Your task to perform on an android device: Go to location settings Image 0: 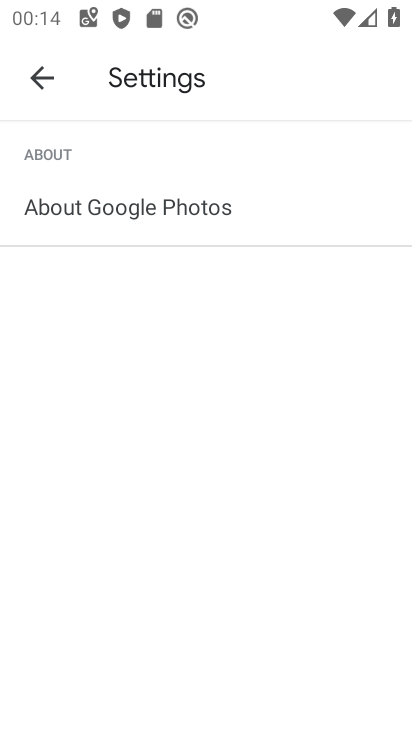
Step 0: press home button
Your task to perform on an android device: Go to location settings Image 1: 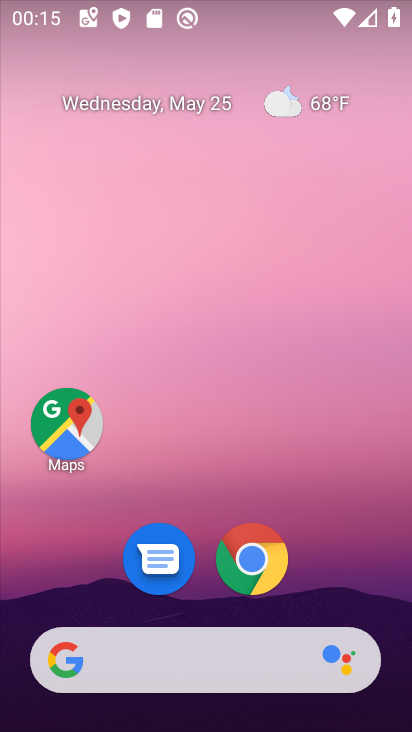
Step 1: drag from (388, 619) to (343, 126)
Your task to perform on an android device: Go to location settings Image 2: 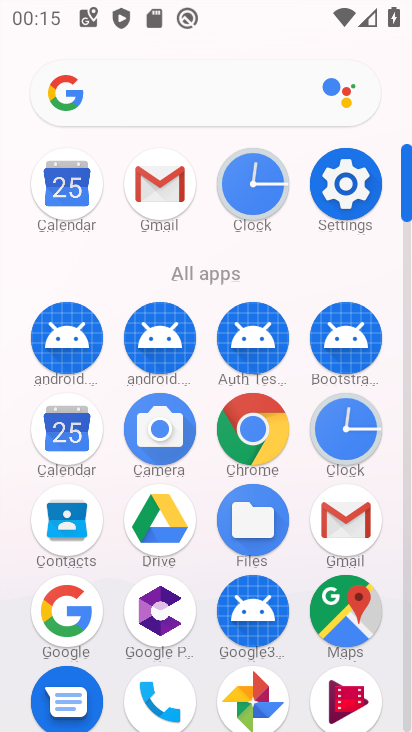
Step 2: click (409, 711)
Your task to perform on an android device: Go to location settings Image 3: 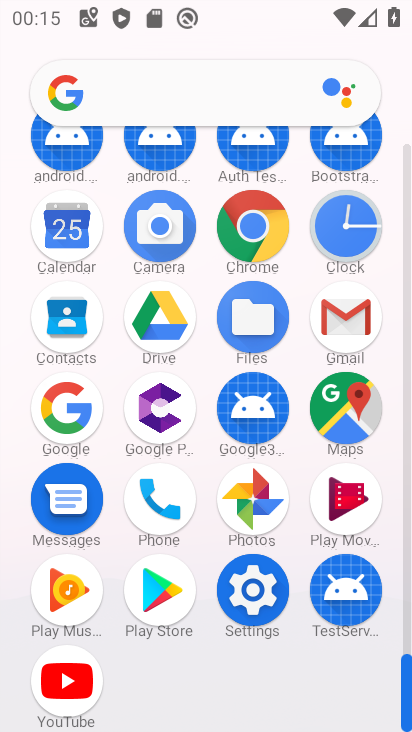
Step 3: click (250, 589)
Your task to perform on an android device: Go to location settings Image 4: 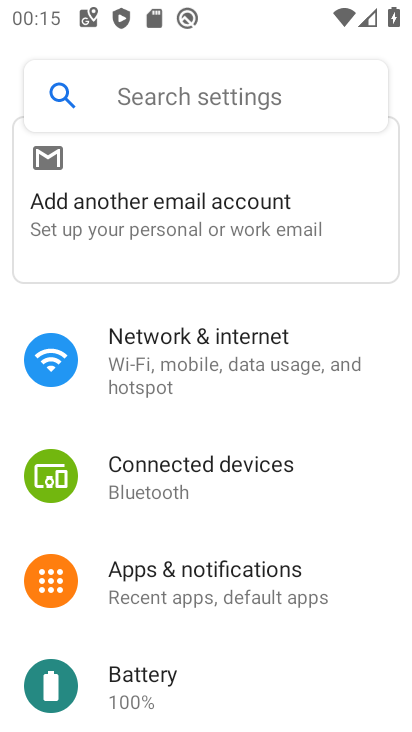
Step 4: drag from (340, 637) to (285, 213)
Your task to perform on an android device: Go to location settings Image 5: 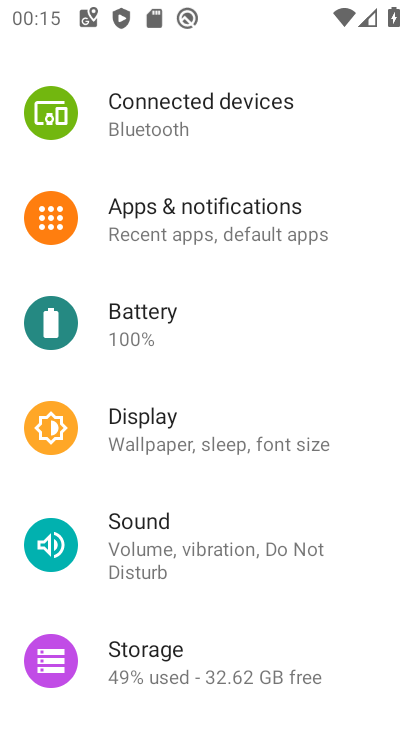
Step 5: drag from (324, 610) to (334, 206)
Your task to perform on an android device: Go to location settings Image 6: 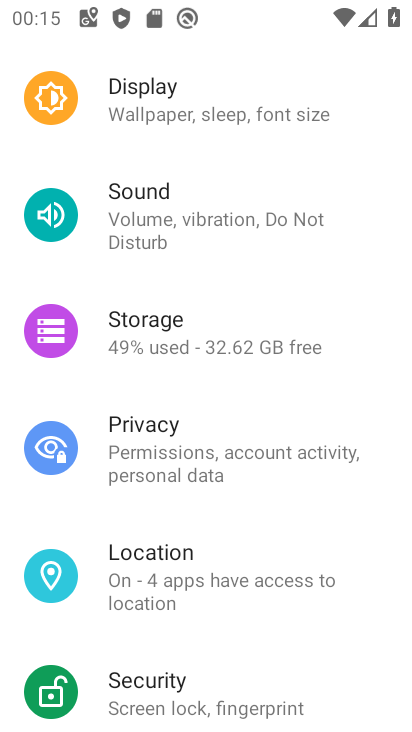
Step 6: click (139, 559)
Your task to perform on an android device: Go to location settings Image 7: 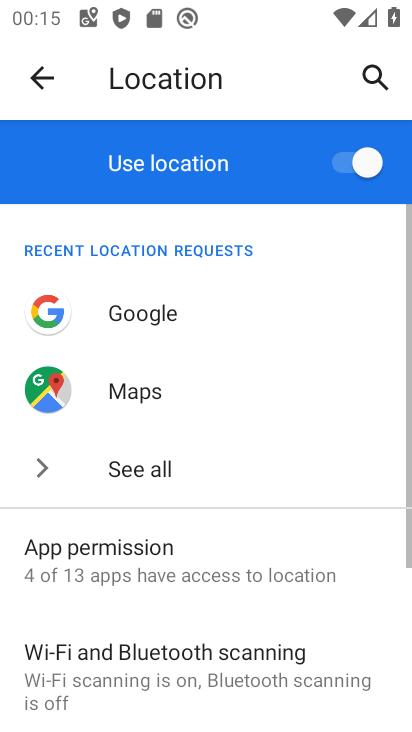
Step 7: drag from (261, 672) to (291, 293)
Your task to perform on an android device: Go to location settings Image 8: 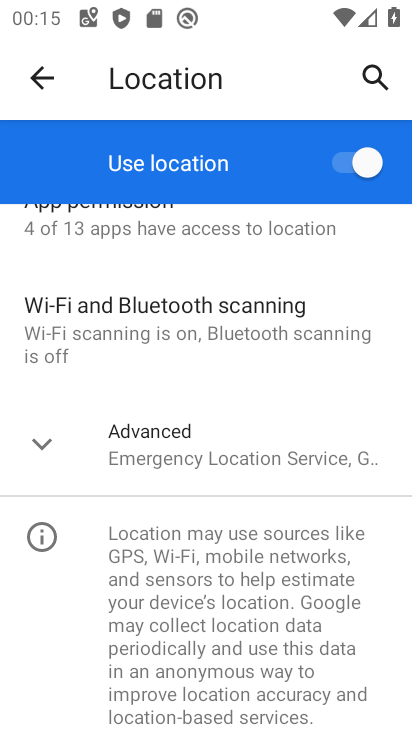
Step 8: click (35, 445)
Your task to perform on an android device: Go to location settings Image 9: 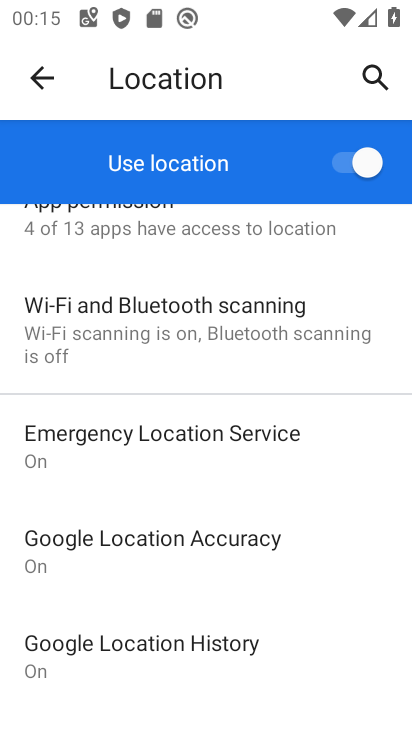
Step 9: task complete